Your task to perform on an android device: Go to Android settings Image 0: 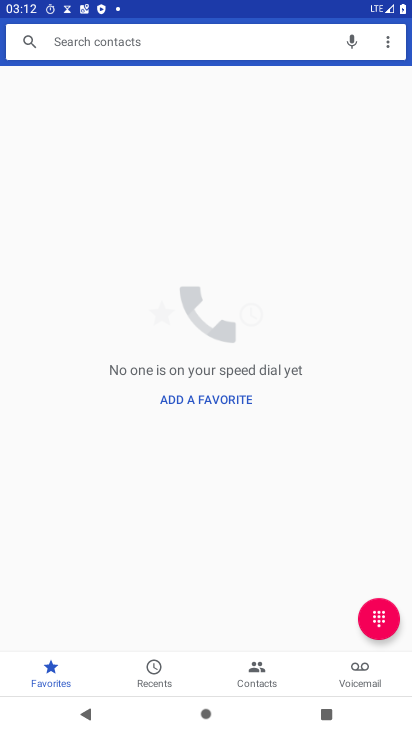
Step 0: press home button
Your task to perform on an android device: Go to Android settings Image 1: 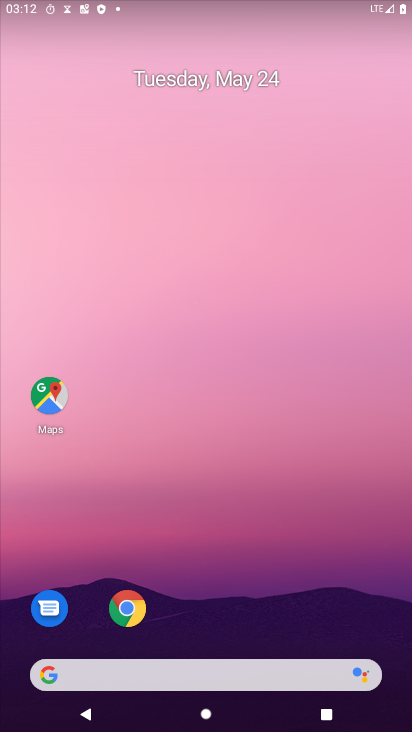
Step 1: drag from (220, 630) to (199, 111)
Your task to perform on an android device: Go to Android settings Image 2: 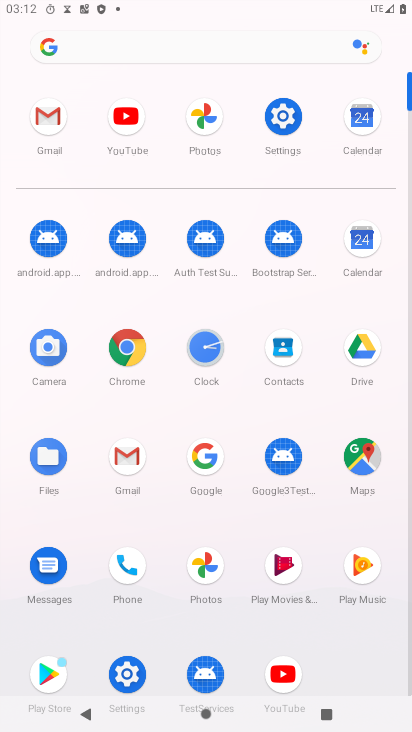
Step 2: click (293, 114)
Your task to perform on an android device: Go to Android settings Image 3: 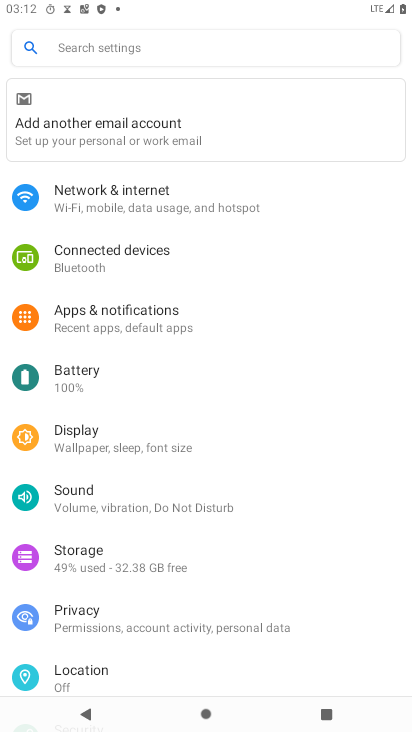
Step 3: task complete